Your task to perform on an android device: empty trash in google photos Image 0: 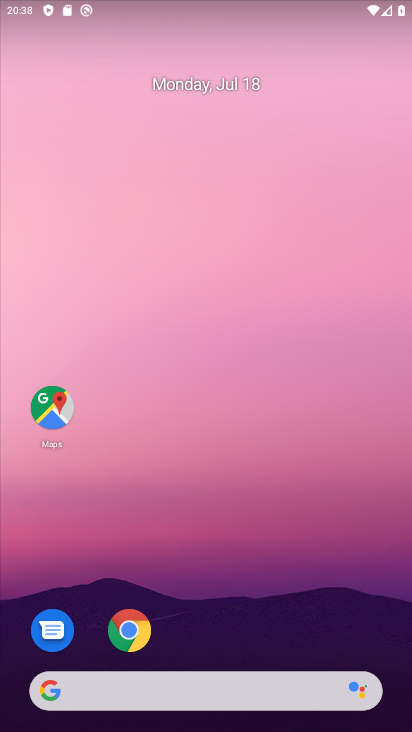
Step 0: drag from (233, 589) to (221, 209)
Your task to perform on an android device: empty trash in google photos Image 1: 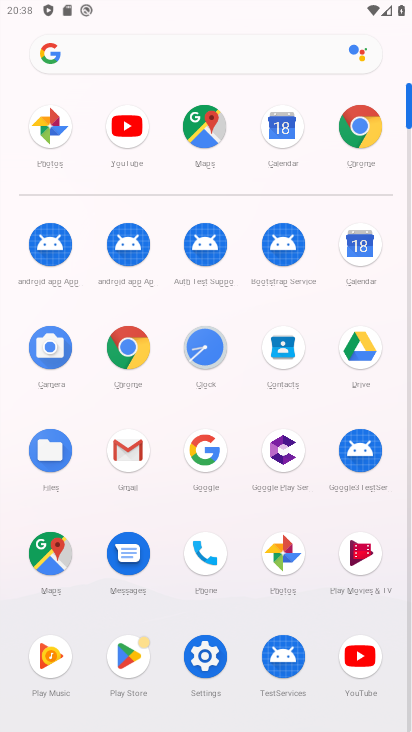
Step 1: click (282, 541)
Your task to perform on an android device: empty trash in google photos Image 2: 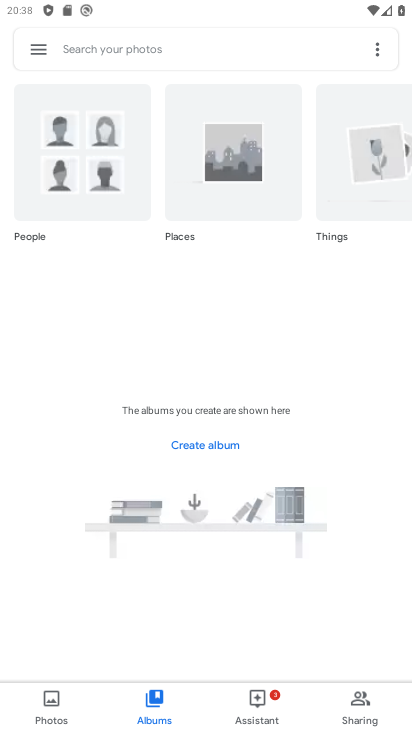
Step 2: click (43, 36)
Your task to perform on an android device: empty trash in google photos Image 3: 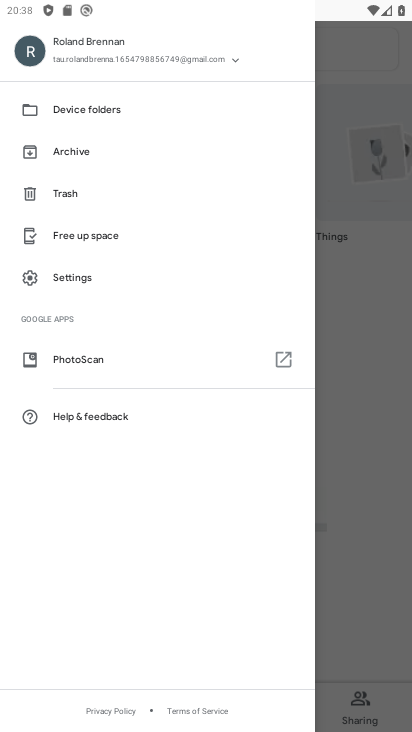
Step 3: click (67, 192)
Your task to perform on an android device: empty trash in google photos Image 4: 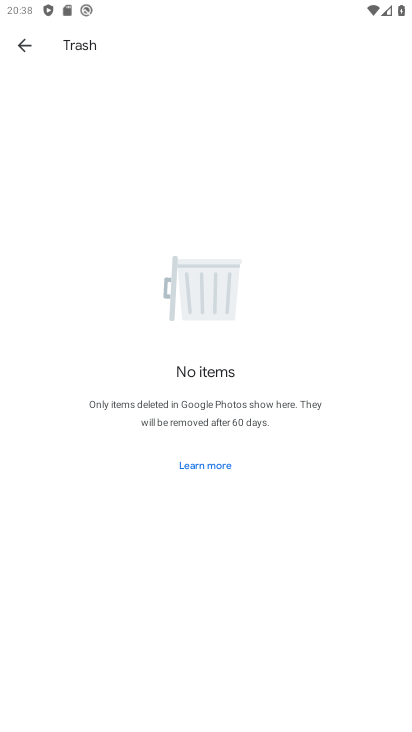
Step 4: task complete